Your task to perform on an android device: delete a single message in the gmail app Image 0: 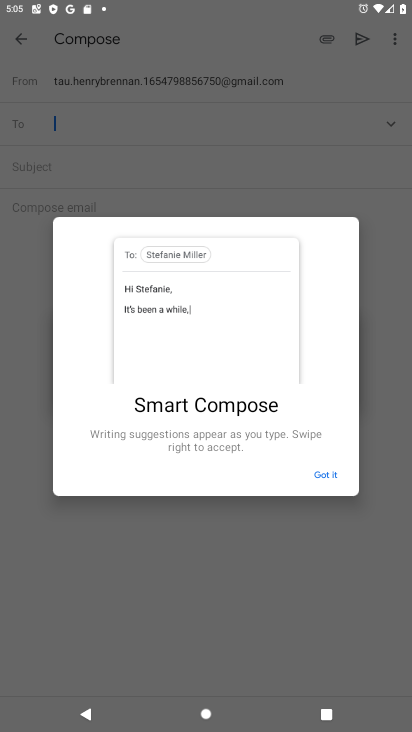
Step 0: press home button
Your task to perform on an android device: delete a single message in the gmail app Image 1: 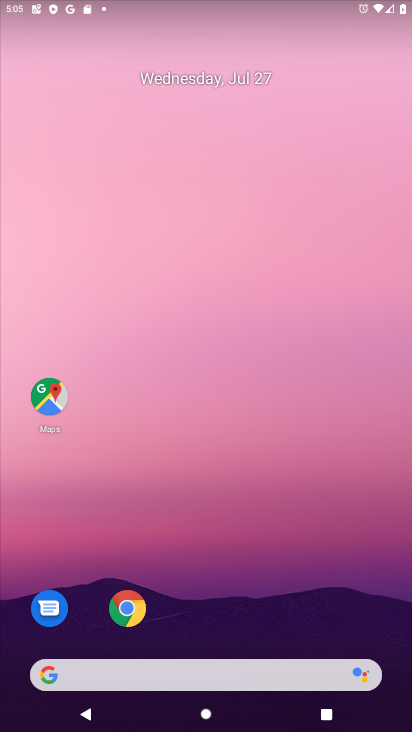
Step 1: drag from (230, 638) to (206, 22)
Your task to perform on an android device: delete a single message in the gmail app Image 2: 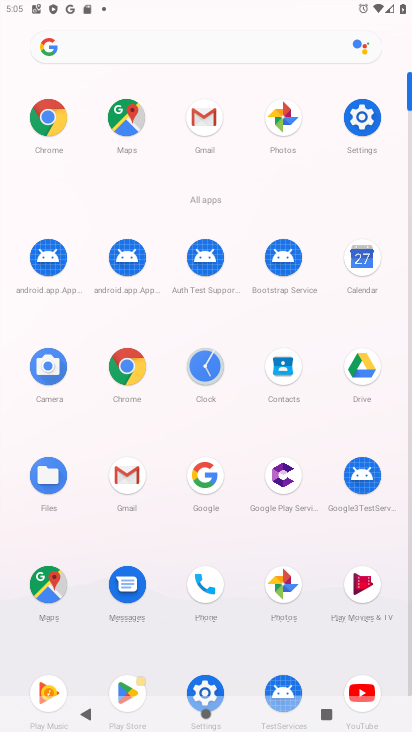
Step 2: click (132, 472)
Your task to perform on an android device: delete a single message in the gmail app Image 3: 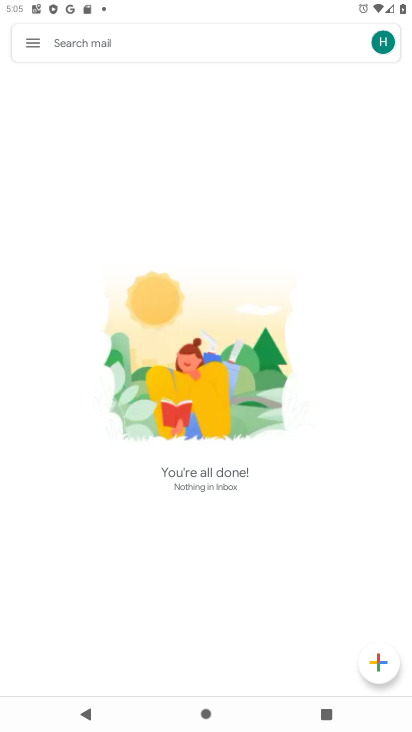
Step 3: task complete